Your task to perform on an android device: Open eBay Image 0: 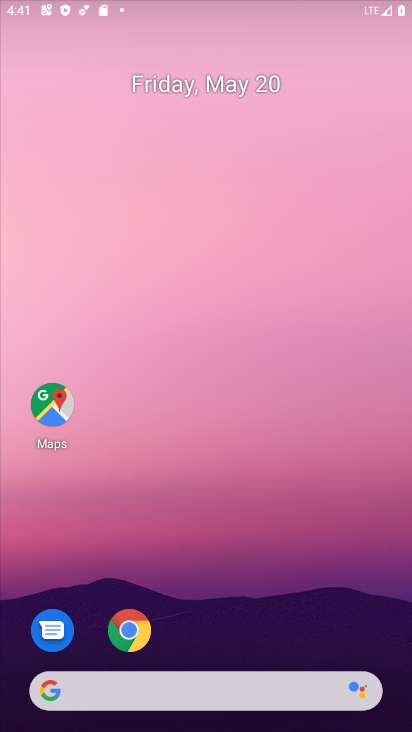
Step 0: click (264, 582)
Your task to perform on an android device: Open eBay Image 1: 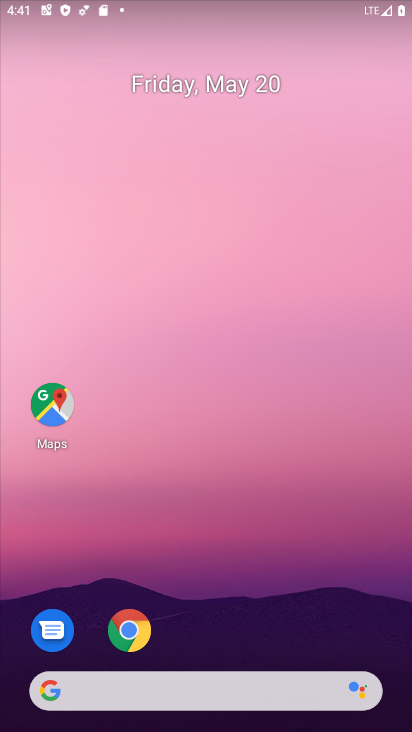
Step 1: click (282, 693)
Your task to perform on an android device: Open eBay Image 2: 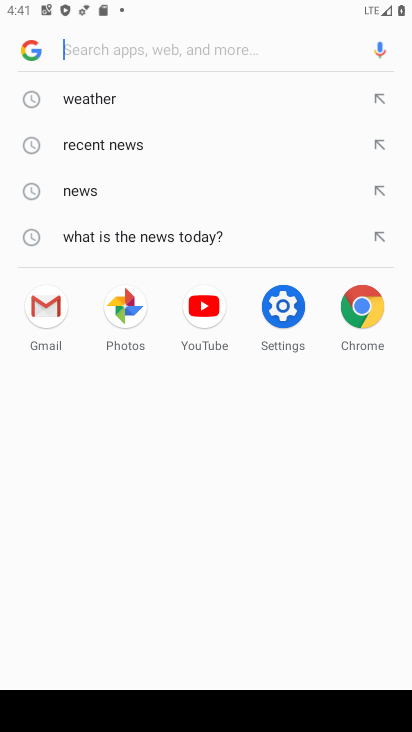
Step 2: type "ebay"
Your task to perform on an android device: Open eBay Image 3: 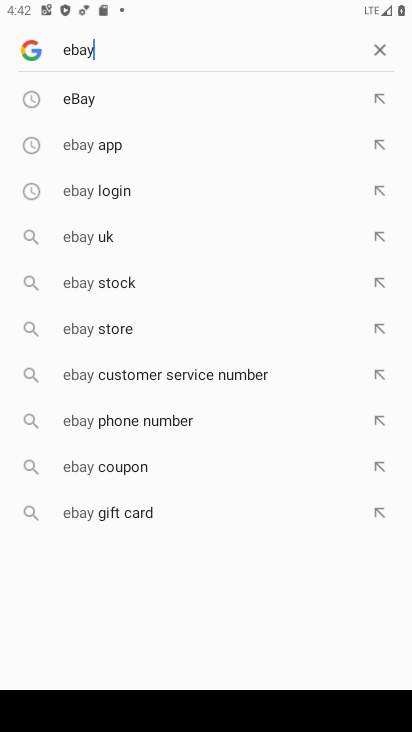
Step 3: click (88, 97)
Your task to perform on an android device: Open eBay Image 4: 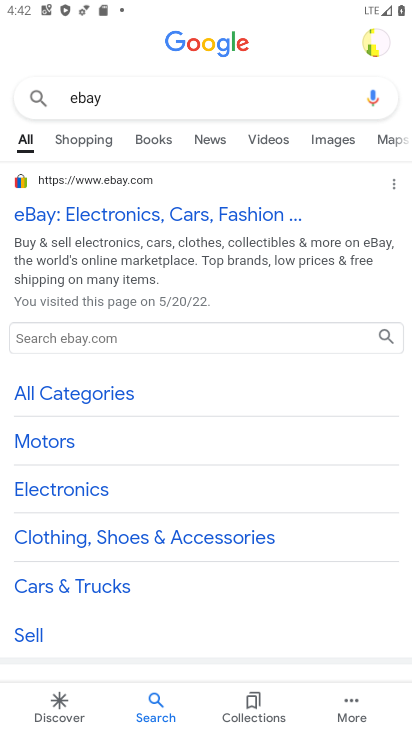
Step 4: click (31, 204)
Your task to perform on an android device: Open eBay Image 5: 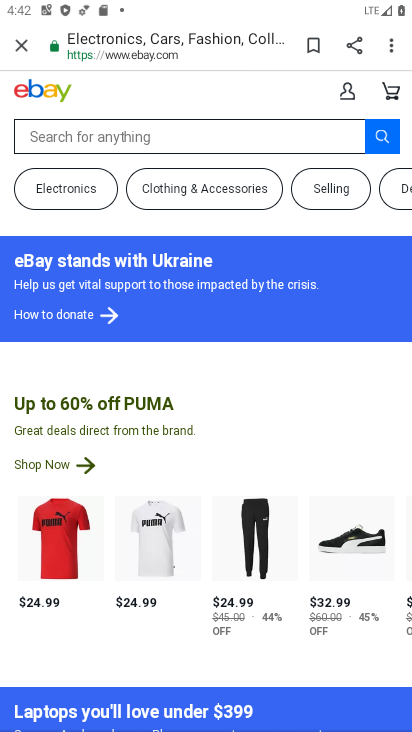
Step 5: task complete